Your task to perform on an android device: Go to Google maps Image 0: 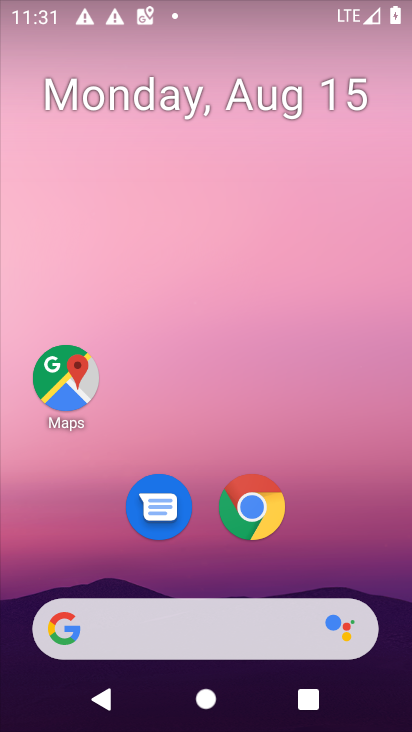
Step 0: click (59, 378)
Your task to perform on an android device: Go to Google maps Image 1: 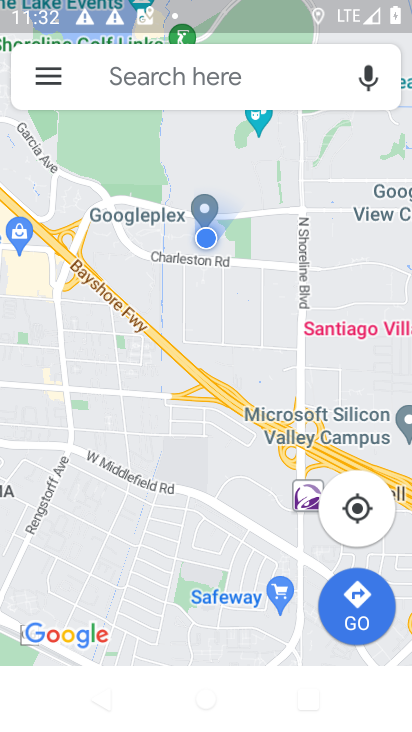
Step 1: task complete